Your task to perform on an android device: open device folders in google photos Image 0: 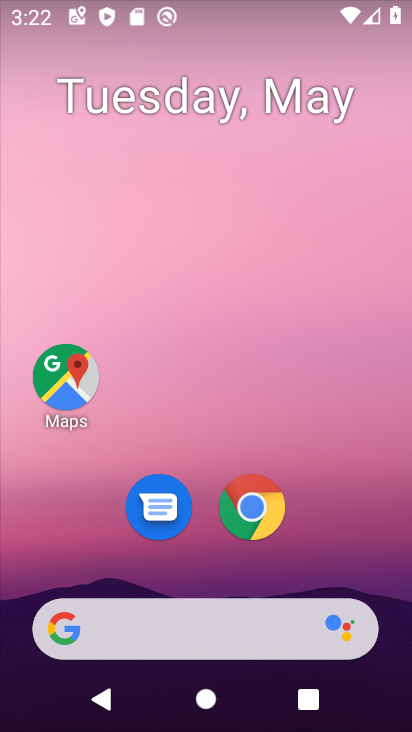
Step 0: drag from (307, 553) to (285, 14)
Your task to perform on an android device: open device folders in google photos Image 1: 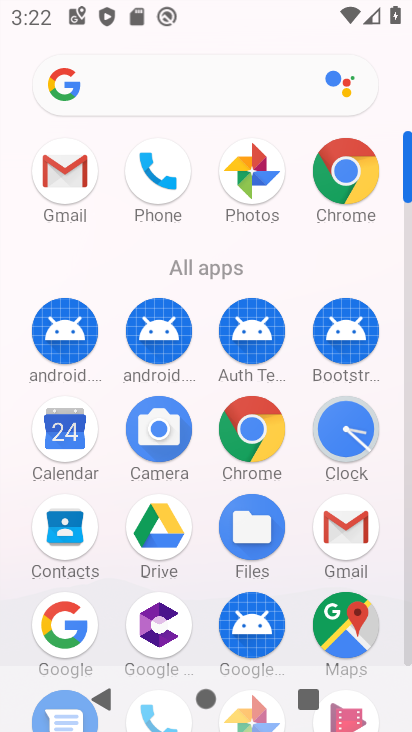
Step 1: click (255, 167)
Your task to perform on an android device: open device folders in google photos Image 2: 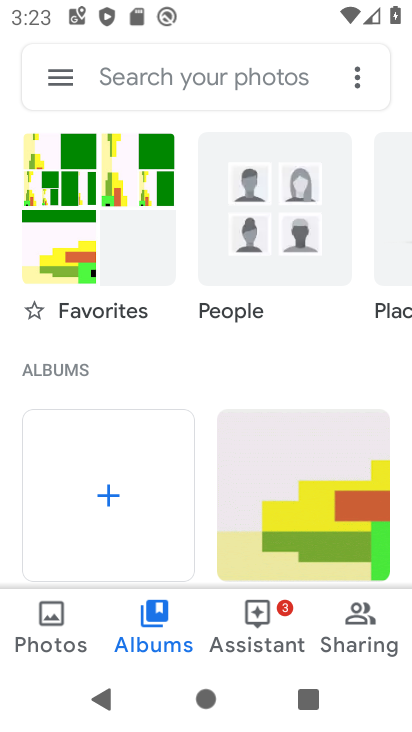
Step 2: click (48, 84)
Your task to perform on an android device: open device folders in google photos Image 3: 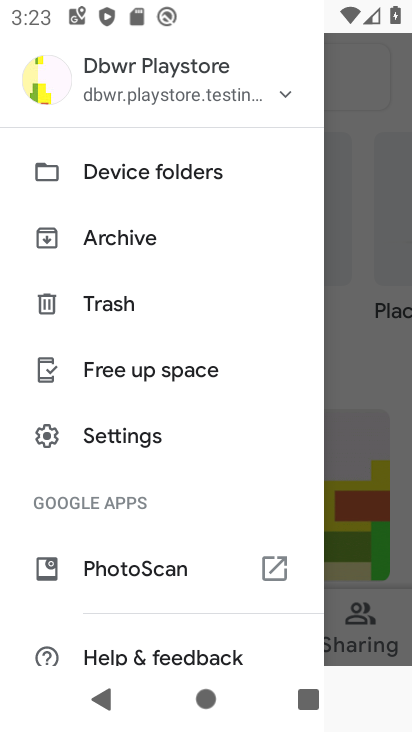
Step 3: click (200, 173)
Your task to perform on an android device: open device folders in google photos Image 4: 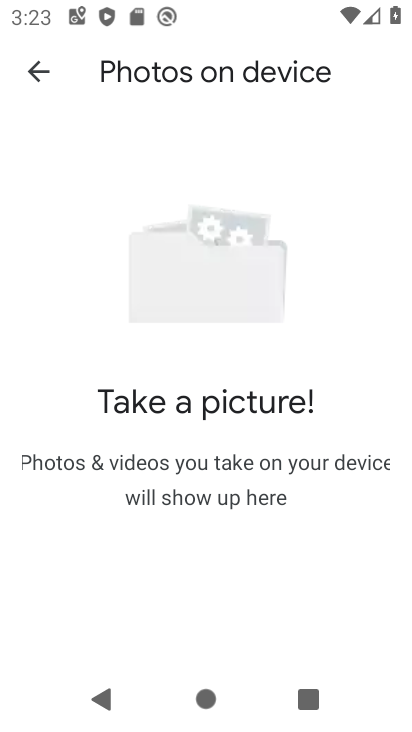
Step 4: task complete